Your task to perform on an android device: open chrome privacy settings Image 0: 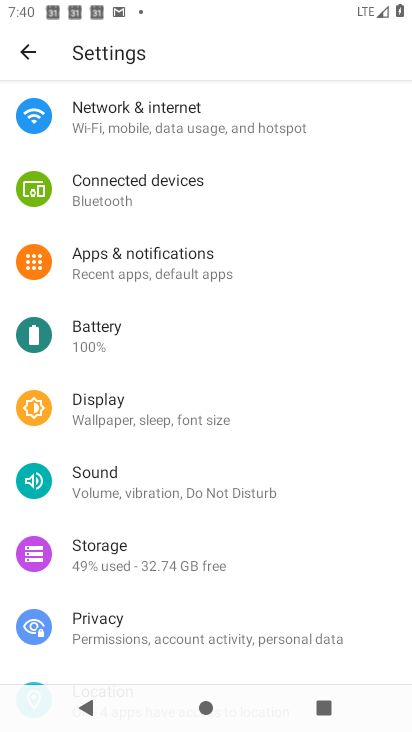
Step 0: drag from (165, 575) to (214, 265)
Your task to perform on an android device: open chrome privacy settings Image 1: 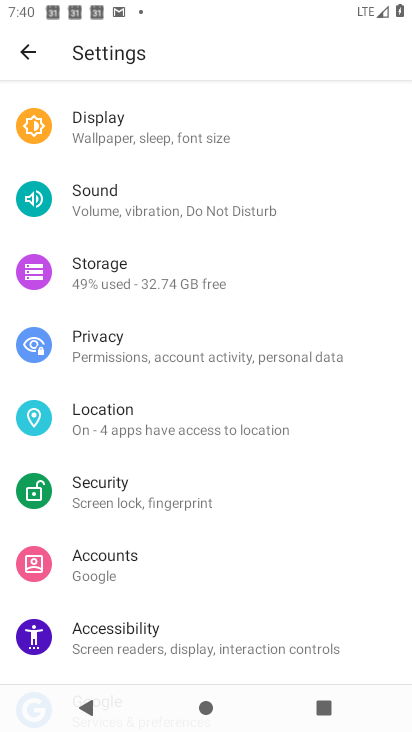
Step 1: press home button
Your task to perform on an android device: open chrome privacy settings Image 2: 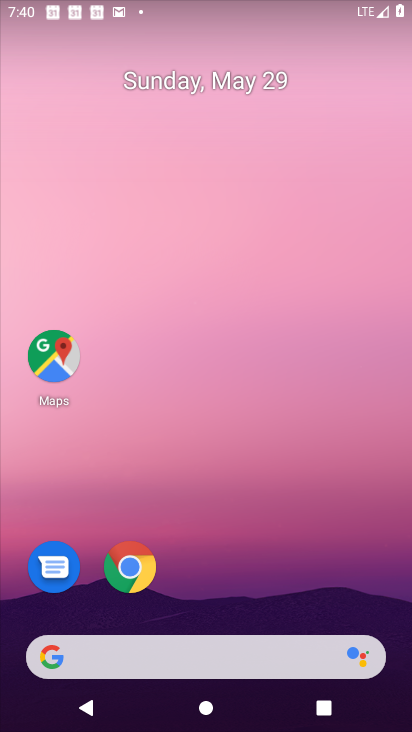
Step 2: click (121, 564)
Your task to perform on an android device: open chrome privacy settings Image 3: 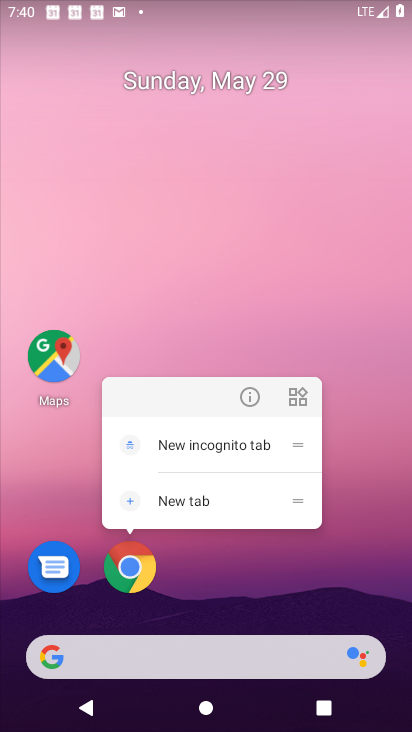
Step 3: click (98, 565)
Your task to perform on an android device: open chrome privacy settings Image 4: 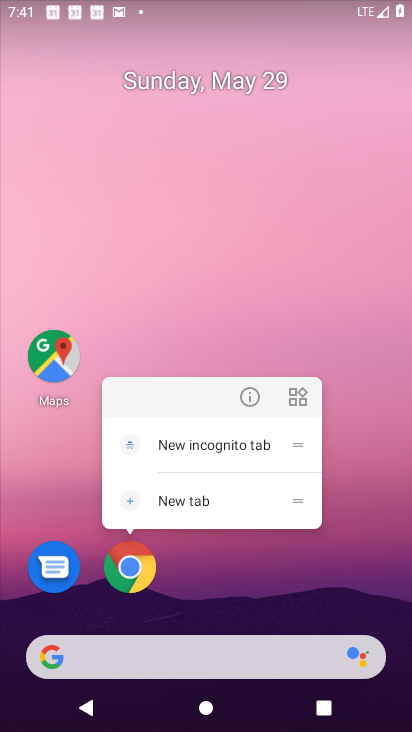
Step 4: click (144, 564)
Your task to perform on an android device: open chrome privacy settings Image 5: 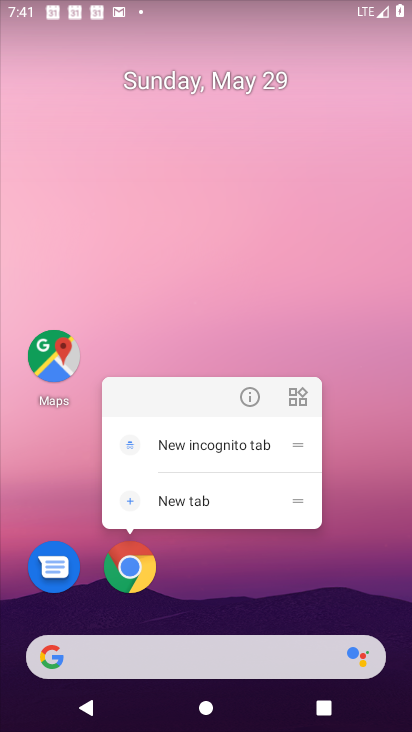
Step 5: click (128, 564)
Your task to perform on an android device: open chrome privacy settings Image 6: 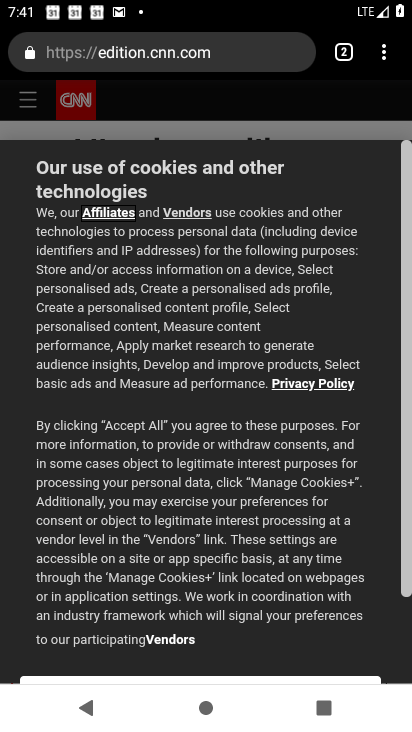
Step 6: click (386, 52)
Your task to perform on an android device: open chrome privacy settings Image 7: 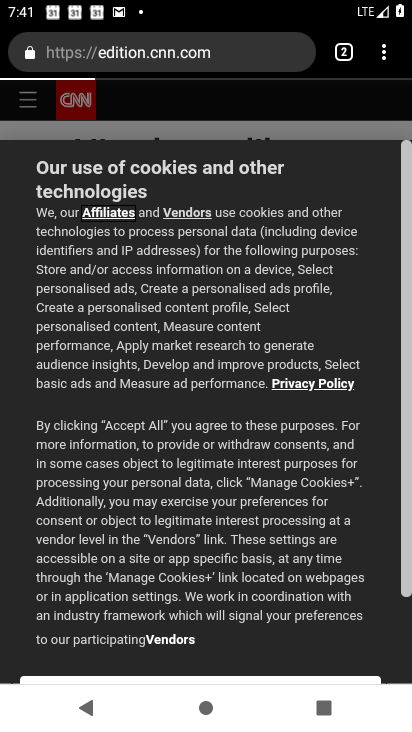
Step 7: click (386, 52)
Your task to perform on an android device: open chrome privacy settings Image 8: 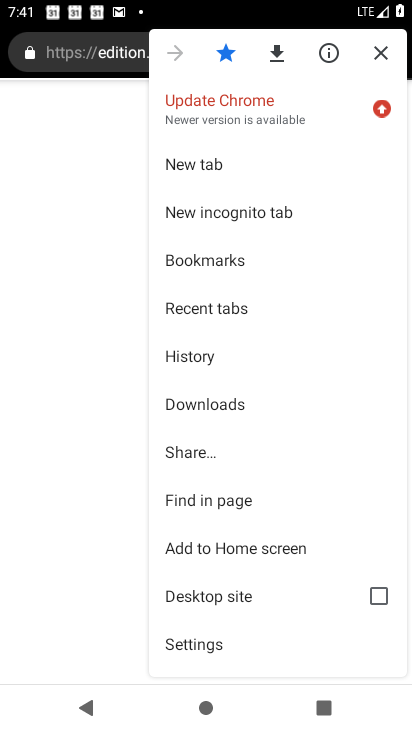
Step 8: click (203, 646)
Your task to perform on an android device: open chrome privacy settings Image 9: 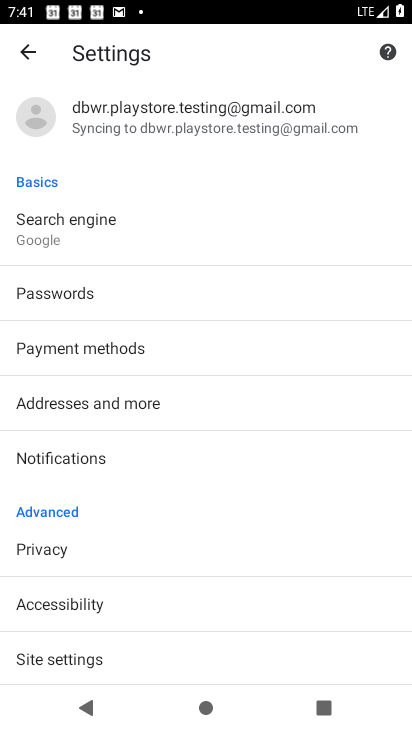
Step 9: task complete